Your task to perform on an android device: snooze an email in the gmail app Image 0: 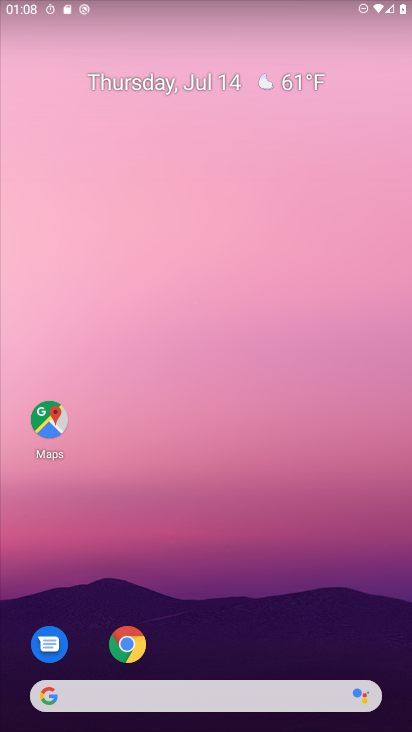
Step 0: drag from (266, 582) to (310, 52)
Your task to perform on an android device: snooze an email in the gmail app Image 1: 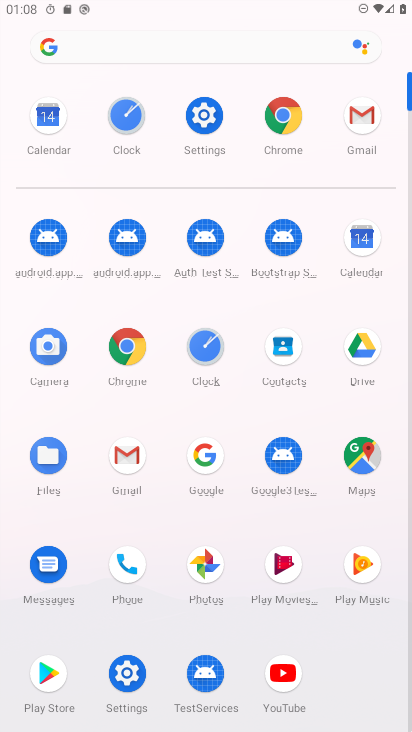
Step 1: click (355, 112)
Your task to perform on an android device: snooze an email in the gmail app Image 2: 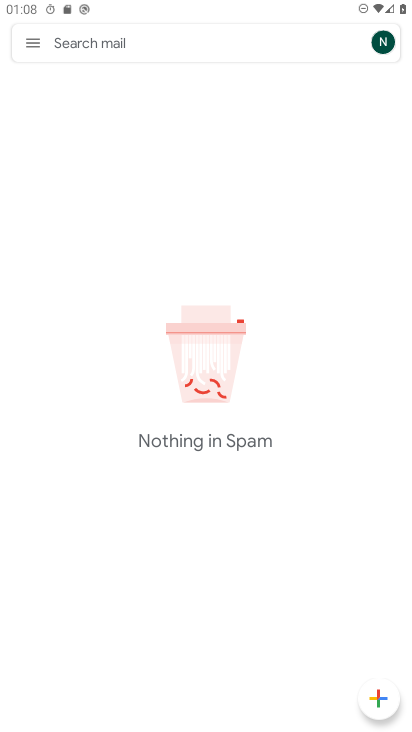
Step 2: click (25, 35)
Your task to perform on an android device: snooze an email in the gmail app Image 3: 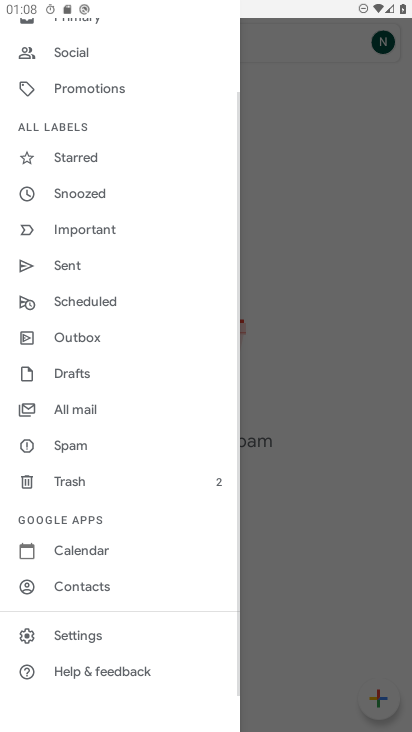
Step 3: click (74, 404)
Your task to perform on an android device: snooze an email in the gmail app Image 4: 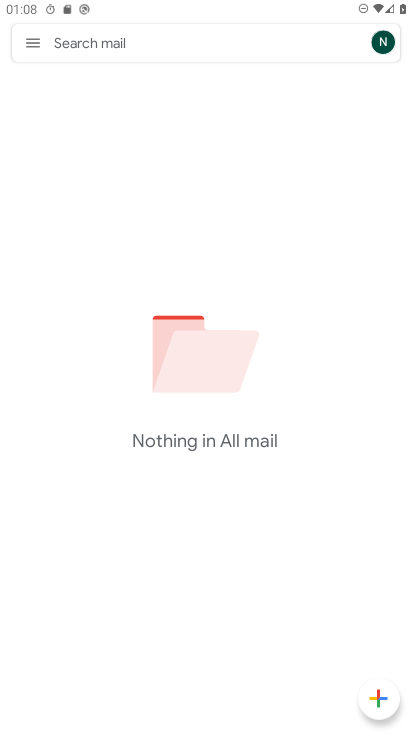
Step 4: task complete